Your task to perform on an android device: Do I have any events today? Image 0: 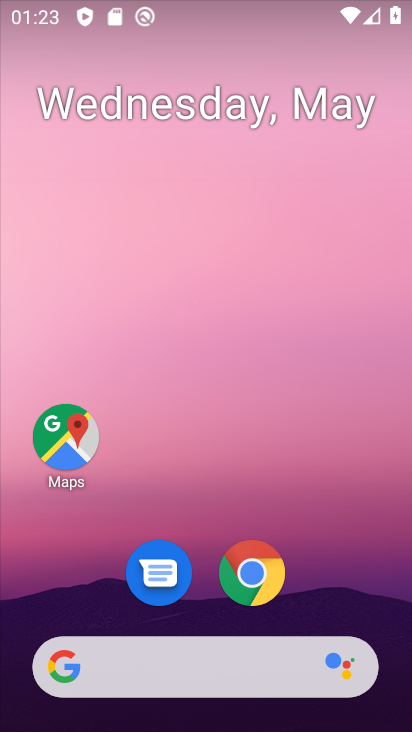
Step 0: drag from (333, 535) to (267, 127)
Your task to perform on an android device: Do I have any events today? Image 1: 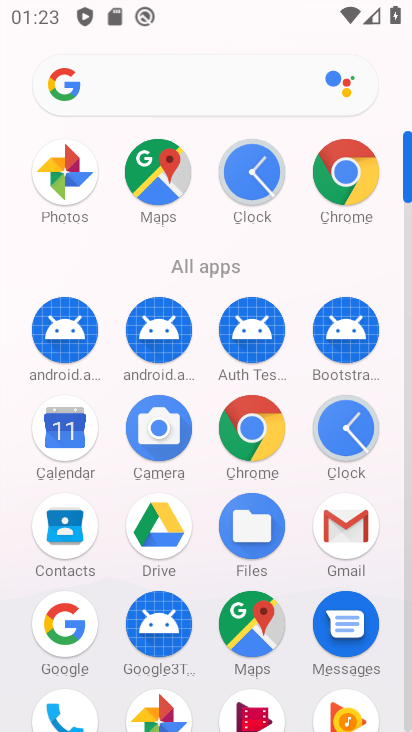
Step 1: click (64, 432)
Your task to perform on an android device: Do I have any events today? Image 2: 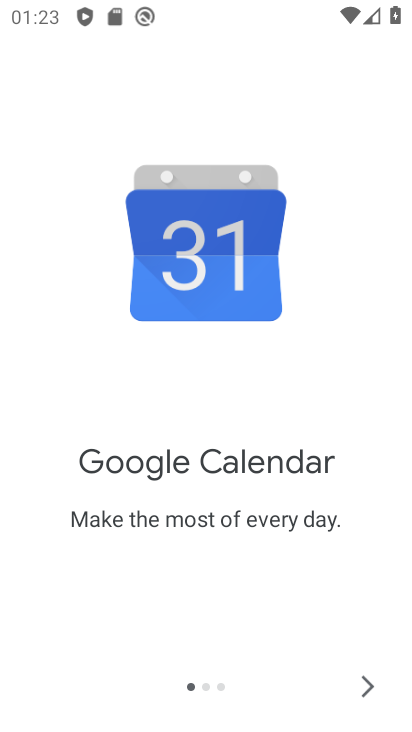
Step 2: click (366, 683)
Your task to perform on an android device: Do I have any events today? Image 3: 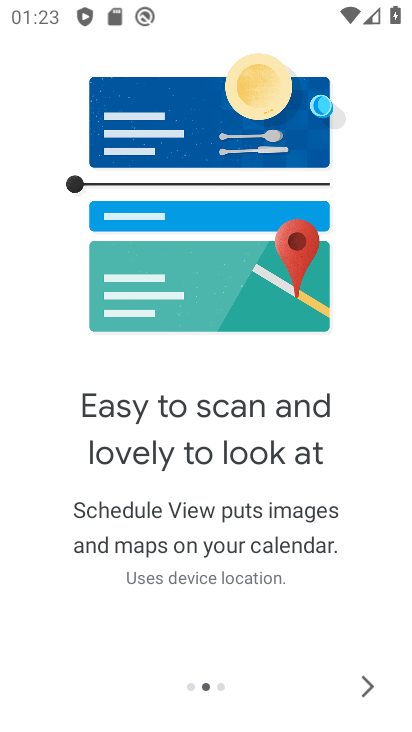
Step 3: click (367, 682)
Your task to perform on an android device: Do I have any events today? Image 4: 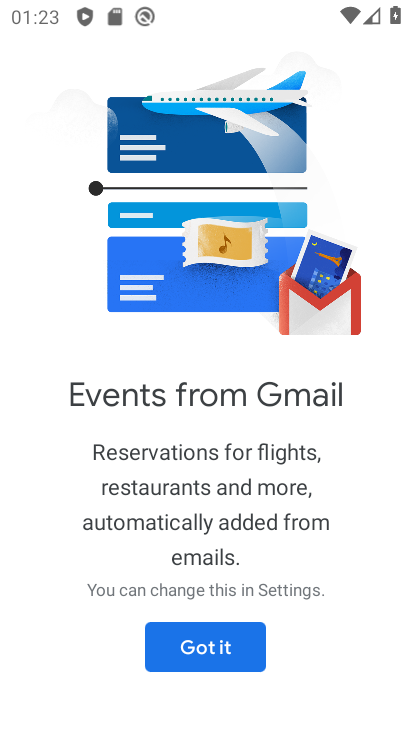
Step 4: click (201, 649)
Your task to perform on an android device: Do I have any events today? Image 5: 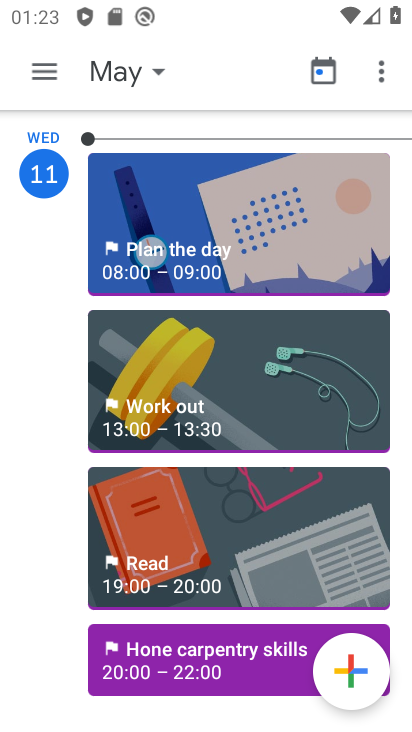
Step 5: click (138, 259)
Your task to perform on an android device: Do I have any events today? Image 6: 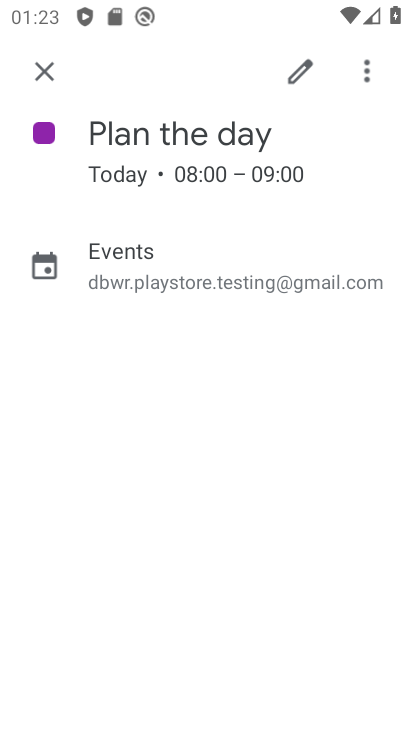
Step 6: task complete